Your task to perform on an android device: Open privacy settings Image 0: 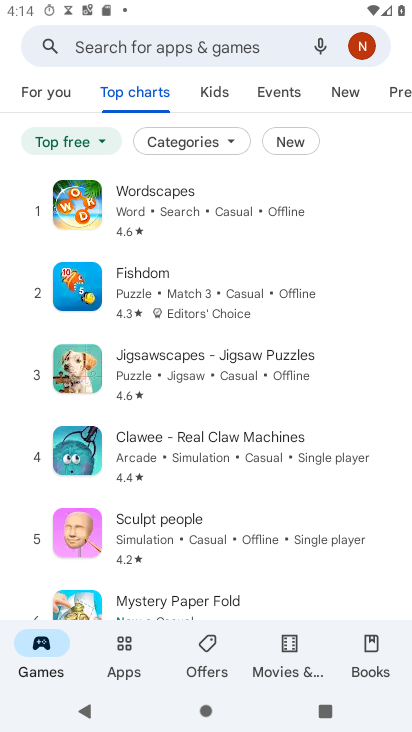
Step 0: press home button
Your task to perform on an android device: Open privacy settings Image 1: 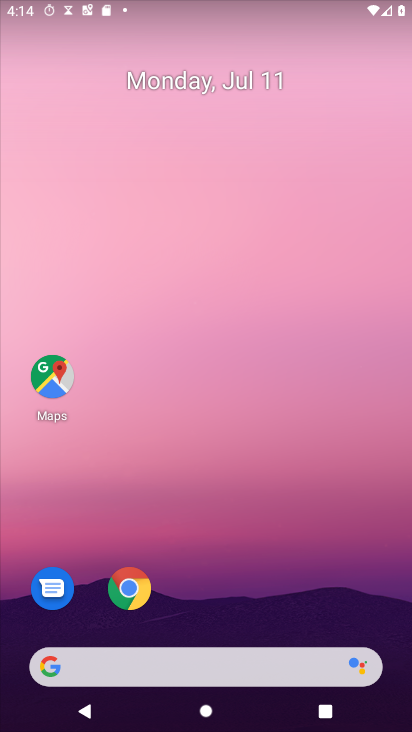
Step 1: drag from (324, 507) to (326, 135)
Your task to perform on an android device: Open privacy settings Image 2: 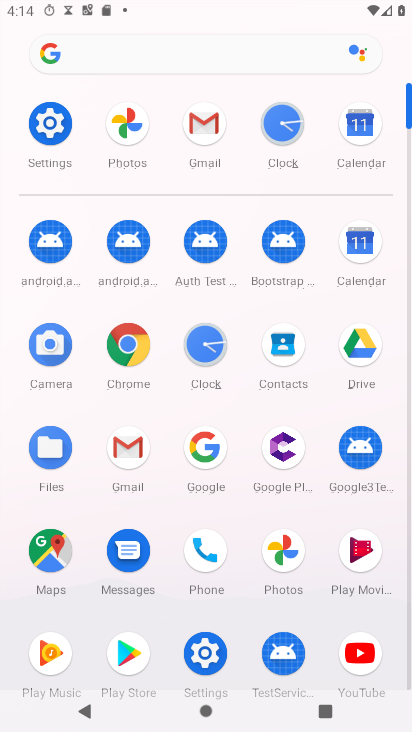
Step 2: click (60, 119)
Your task to perform on an android device: Open privacy settings Image 3: 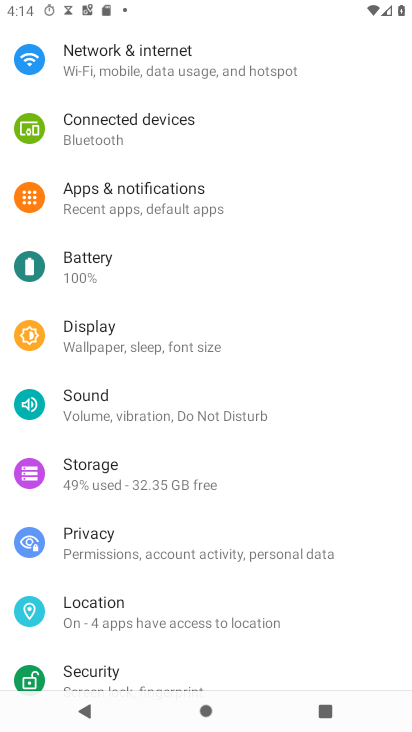
Step 3: click (139, 530)
Your task to perform on an android device: Open privacy settings Image 4: 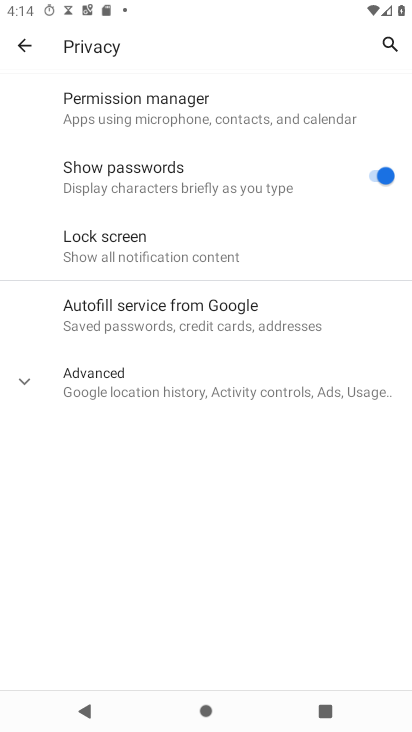
Step 4: task complete